Your task to perform on an android device: Open calendar and show me the third week of next month Image 0: 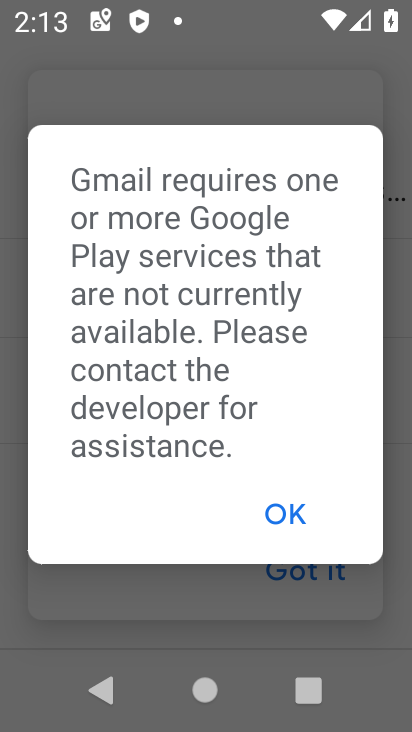
Step 0: press home button
Your task to perform on an android device: Open calendar and show me the third week of next month Image 1: 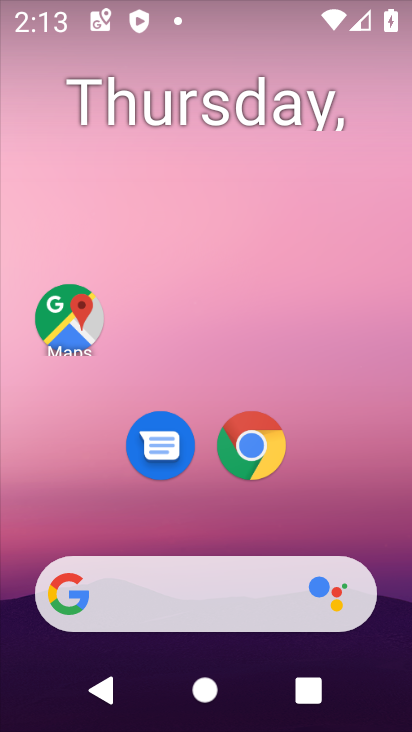
Step 1: drag from (42, 524) to (256, 223)
Your task to perform on an android device: Open calendar and show me the third week of next month Image 2: 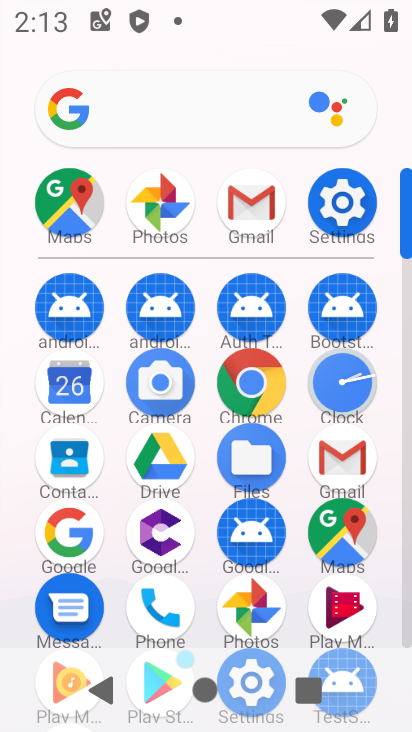
Step 2: click (79, 386)
Your task to perform on an android device: Open calendar and show me the third week of next month Image 3: 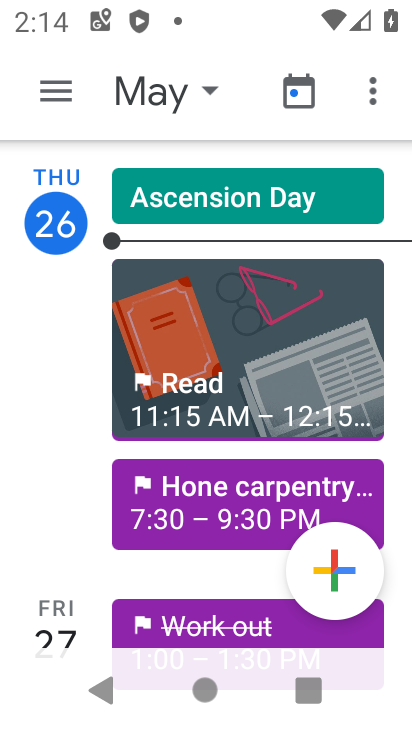
Step 3: click (192, 87)
Your task to perform on an android device: Open calendar and show me the third week of next month Image 4: 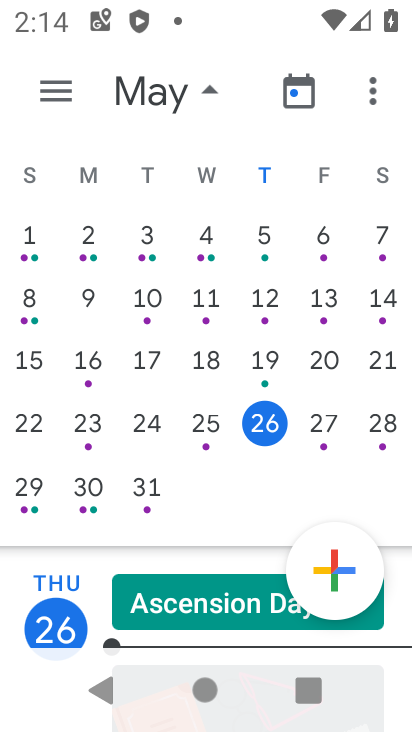
Step 4: drag from (385, 317) to (17, 349)
Your task to perform on an android device: Open calendar and show me the third week of next month Image 5: 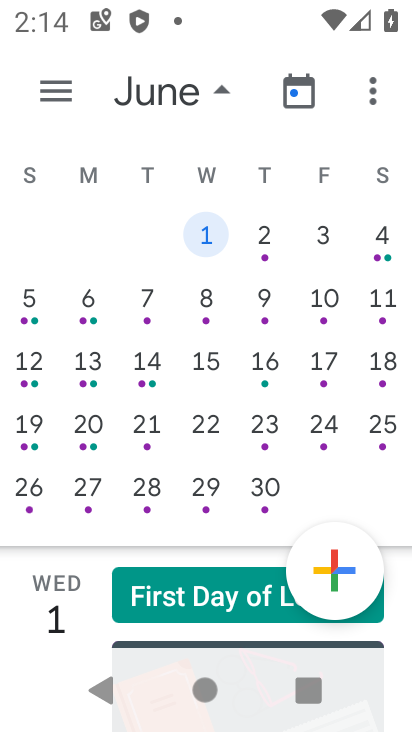
Step 5: click (216, 303)
Your task to perform on an android device: Open calendar and show me the third week of next month Image 6: 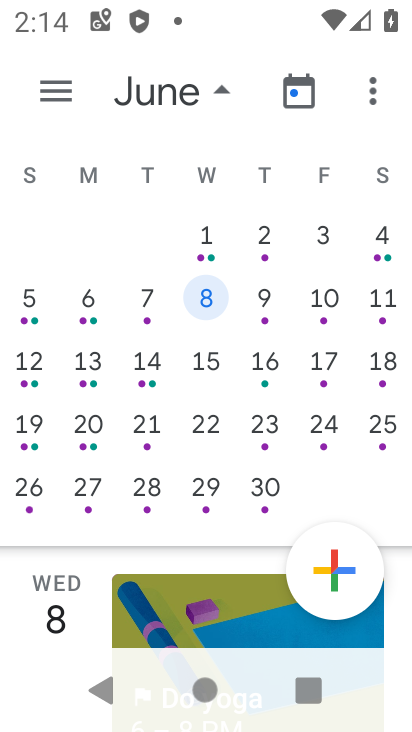
Step 6: click (206, 372)
Your task to perform on an android device: Open calendar and show me the third week of next month Image 7: 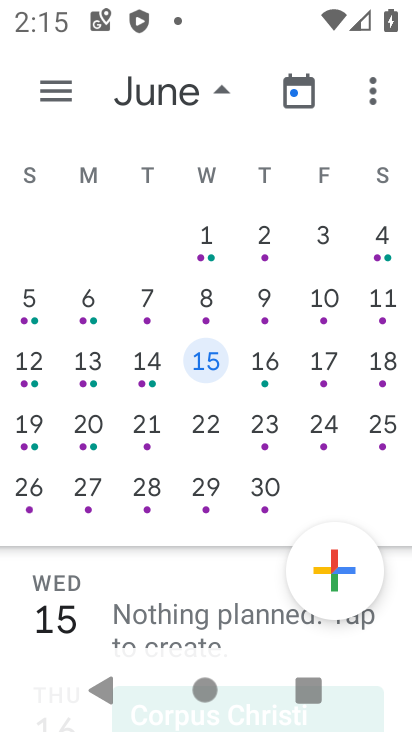
Step 7: task complete